Your task to perform on an android device: turn on location history Image 0: 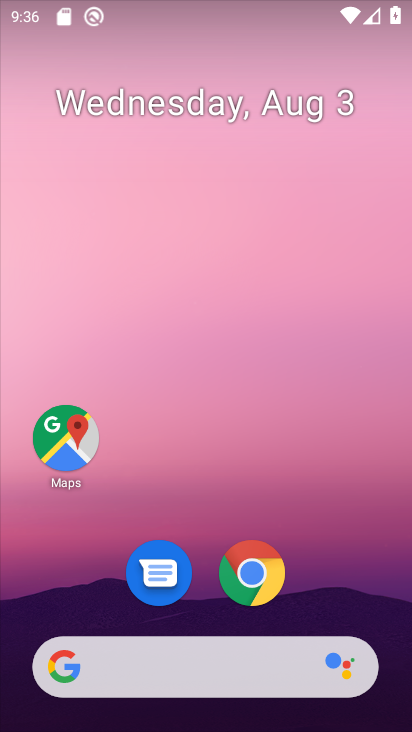
Step 0: drag from (164, 689) to (299, 83)
Your task to perform on an android device: turn on location history Image 1: 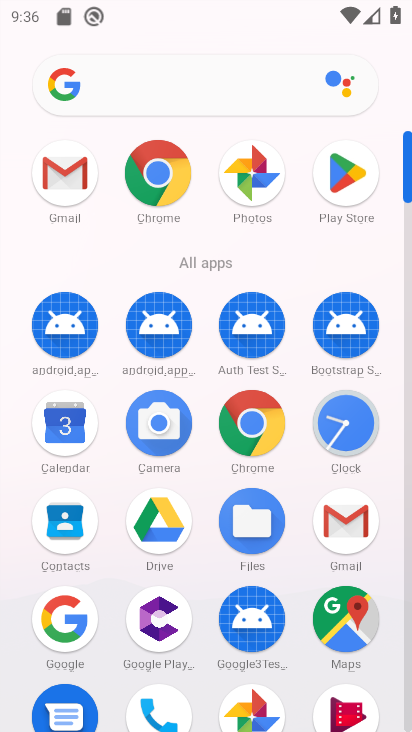
Step 1: drag from (209, 686) to (217, 55)
Your task to perform on an android device: turn on location history Image 2: 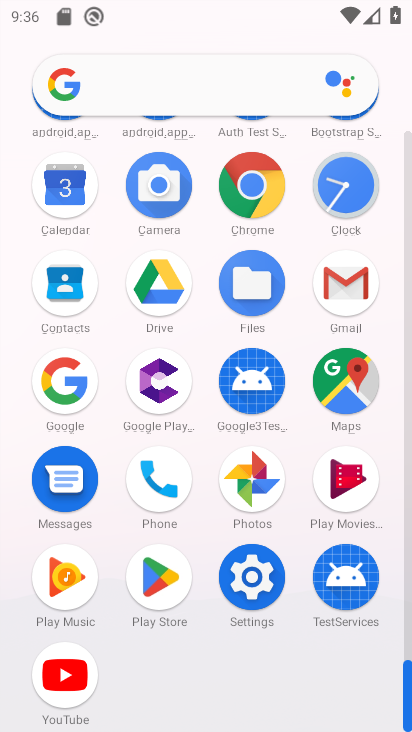
Step 2: click (243, 602)
Your task to perform on an android device: turn on location history Image 3: 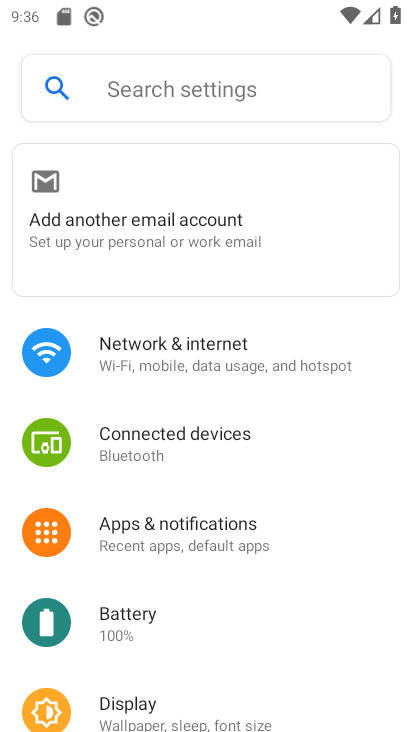
Step 3: drag from (196, 639) to (253, 291)
Your task to perform on an android device: turn on location history Image 4: 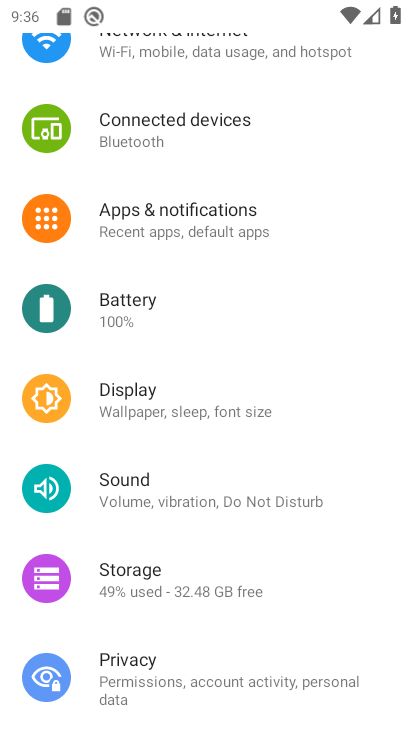
Step 4: drag from (175, 639) to (163, 236)
Your task to perform on an android device: turn on location history Image 5: 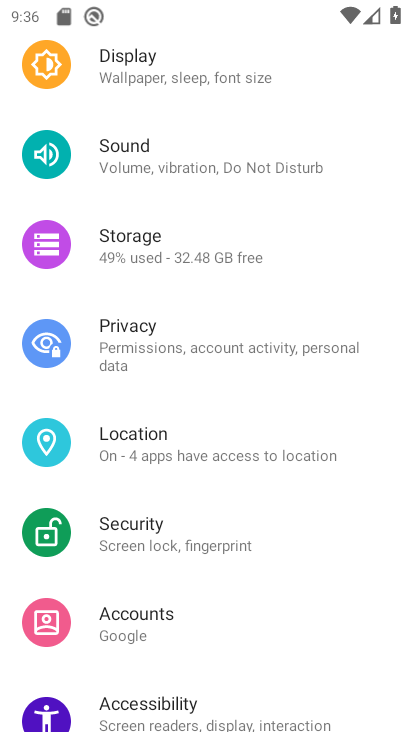
Step 5: click (136, 435)
Your task to perform on an android device: turn on location history Image 6: 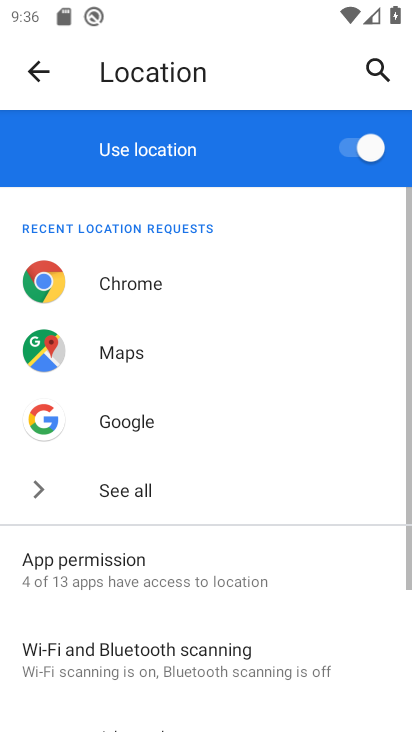
Step 6: drag from (146, 676) to (202, 339)
Your task to perform on an android device: turn on location history Image 7: 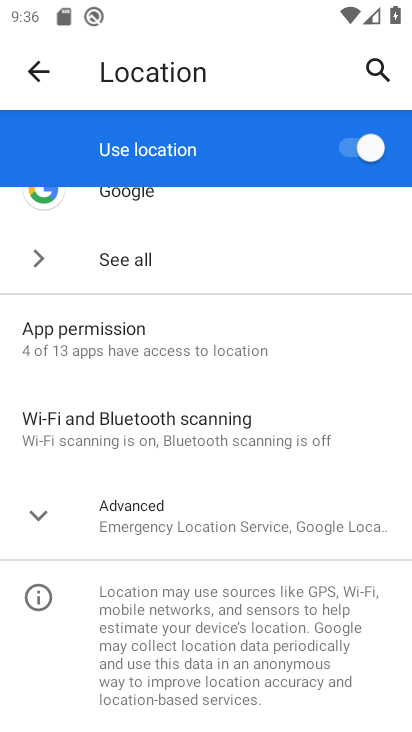
Step 7: click (134, 504)
Your task to perform on an android device: turn on location history Image 8: 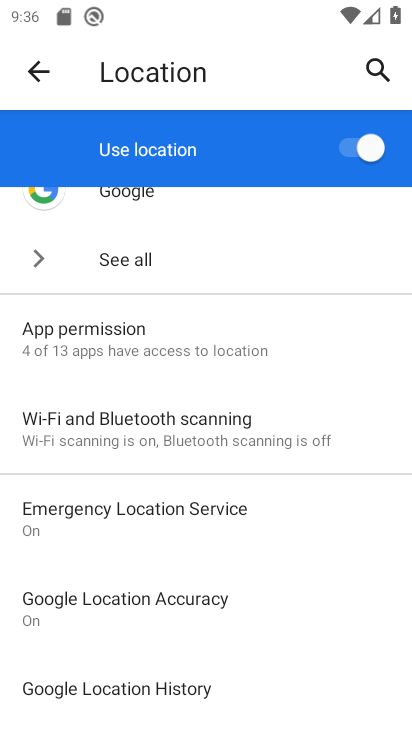
Step 8: click (180, 683)
Your task to perform on an android device: turn on location history Image 9: 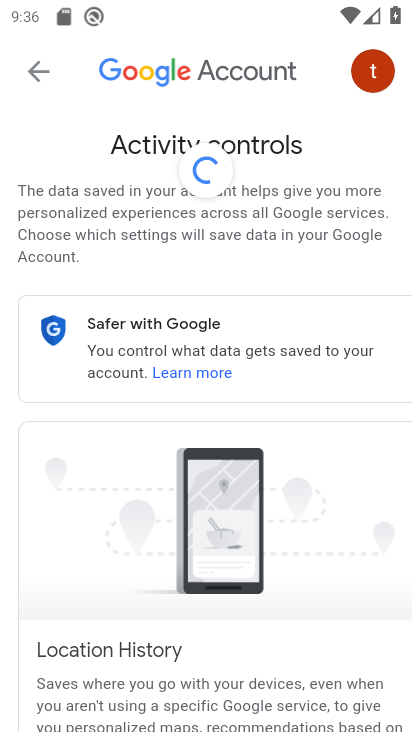
Step 9: drag from (317, 558) to (269, 134)
Your task to perform on an android device: turn on location history Image 10: 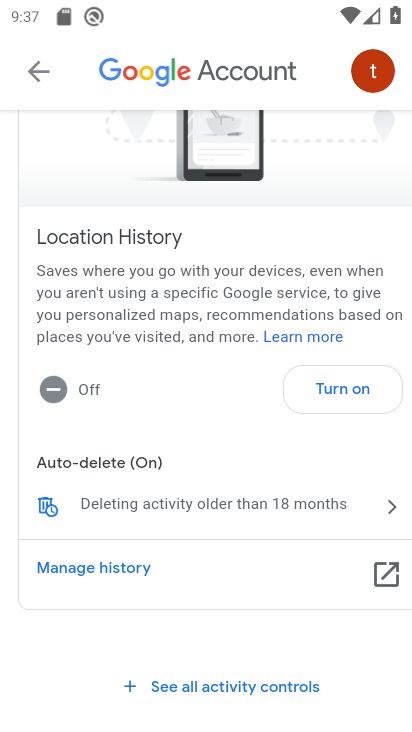
Step 10: drag from (302, 589) to (309, 279)
Your task to perform on an android device: turn on location history Image 11: 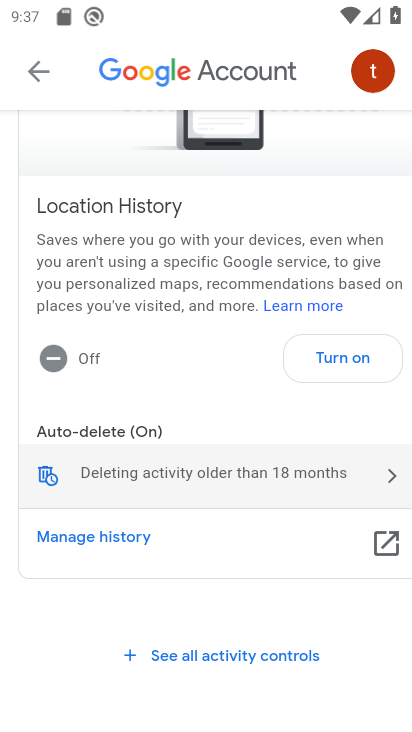
Step 11: click (334, 346)
Your task to perform on an android device: turn on location history Image 12: 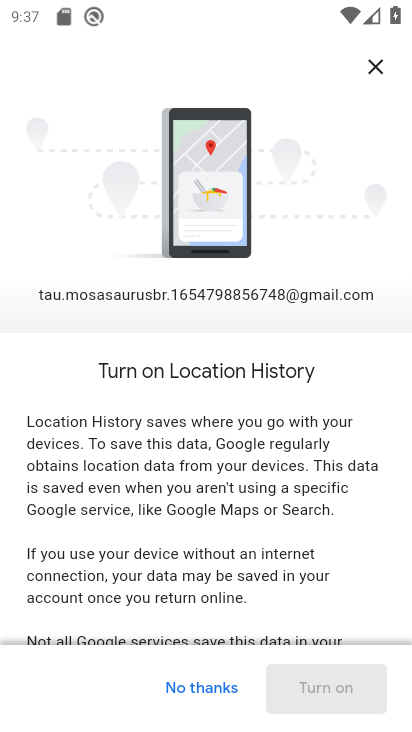
Step 12: drag from (314, 565) to (319, 112)
Your task to perform on an android device: turn on location history Image 13: 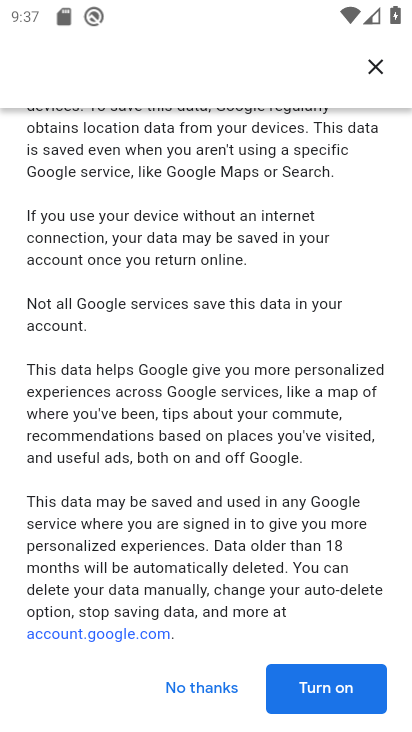
Step 13: click (320, 682)
Your task to perform on an android device: turn on location history Image 14: 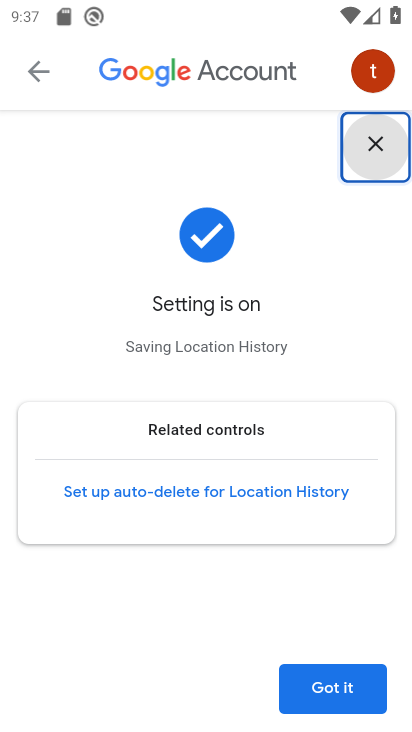
Step 14: click (331, 689)
Your task to perform on an android device: turn on location history Image 15: 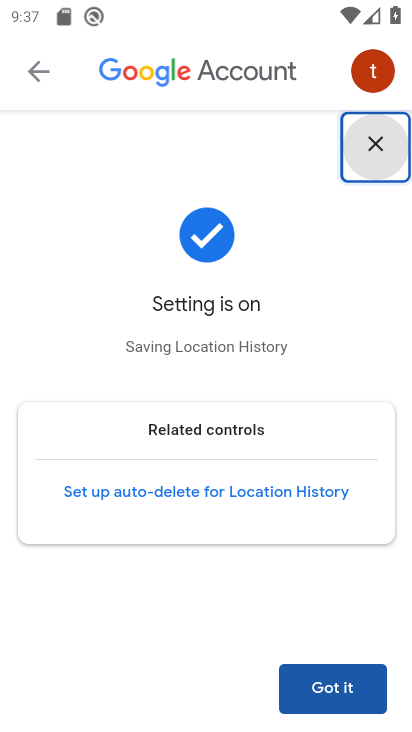
Step 15: task complete